Your task to perform on an android device: Open Maps and search for coffee Image 0: 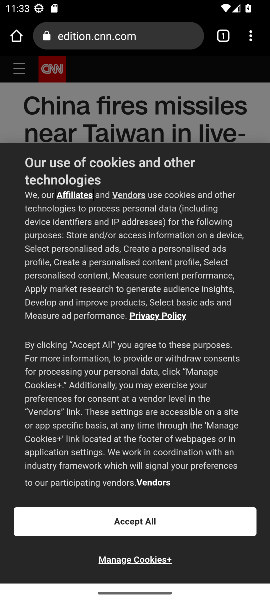
Step 0: press home button
Your task to perform on an android device: Open Maps and search for coffee Image 1: 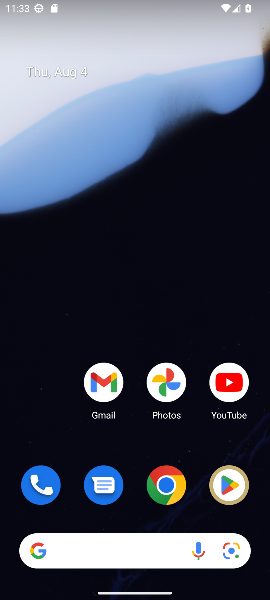
Step 1: drag from (144, 523) to (153, 140)
Your task to perform on an android device: Open Maps and search for coffee Image 2: 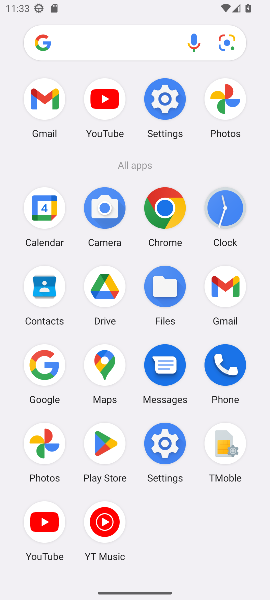
Step 2: click (106, 370)
Your task to perform on an android device: Open Maps and search for coffee Image 3: 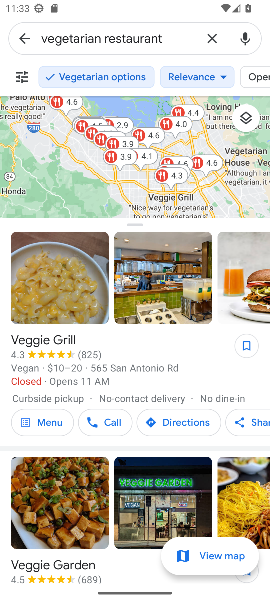
Step 3: click (214, 33)
Your task to perform on an android device: Open Maps and search for coffee Image 4: 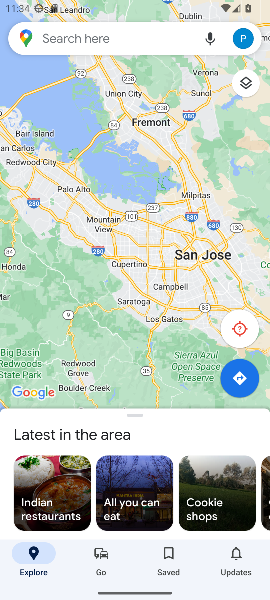
Step 4: click (136, 45)
Your task to perform on an android device: Open Maps and search for coffee Image 5: 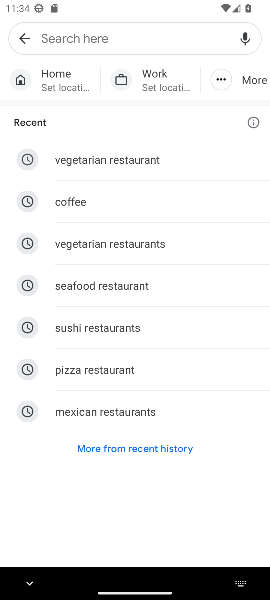
Step 5: type "coffee"
Your task to perform on an android device: Open Maps and search for coffee Image 6: 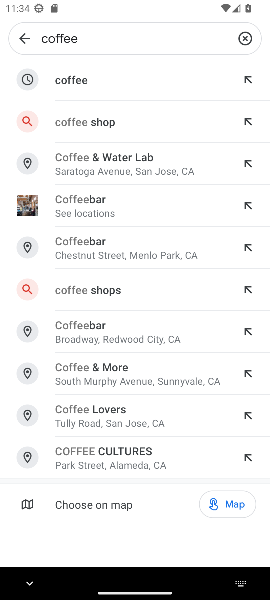
Step 6: click (67, 77)
Your task to perform on an android device: Open Maps and search for coffee Image 7: 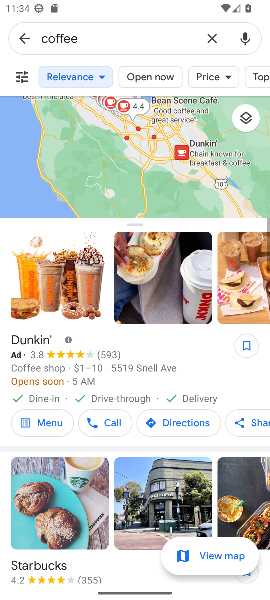
Step 7: task complete